Your task to perform on an android device: turn off picture-in-picture Image 0: 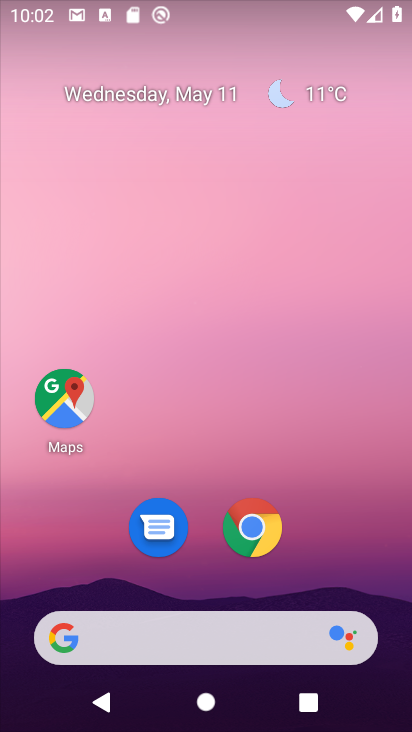
Step 0: click (271, 0)
Your task to perform on an android device: turn off picture-in-picture Image 1: 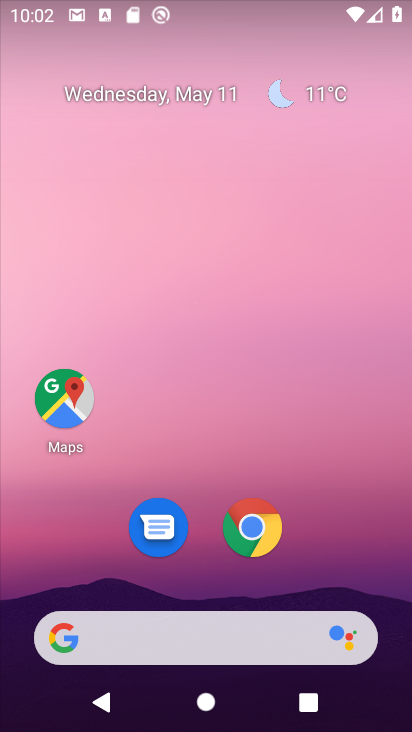
Step 1: drag from (382, 587) to (352, 66)
Your task to perform on an android device: turn off picture-in-picture Image 2: 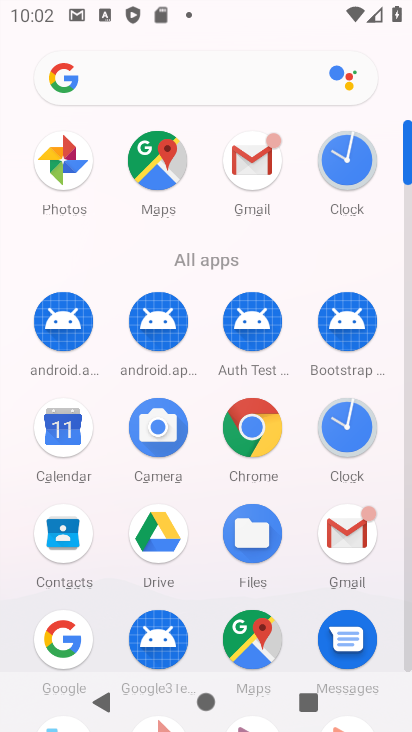
Step 2: click (252, 438)
Your task to perform on an android device: turn off picture-in-picture Image 3: 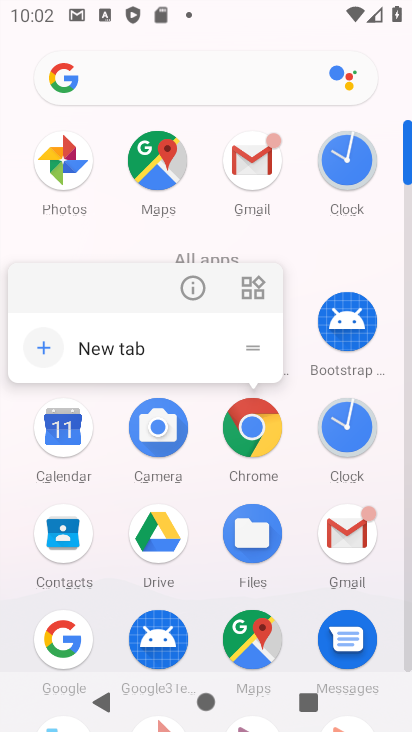
Step 3: click (200, 285)
Your task to perform on an android device: turn off picture-in-picture Image 4: 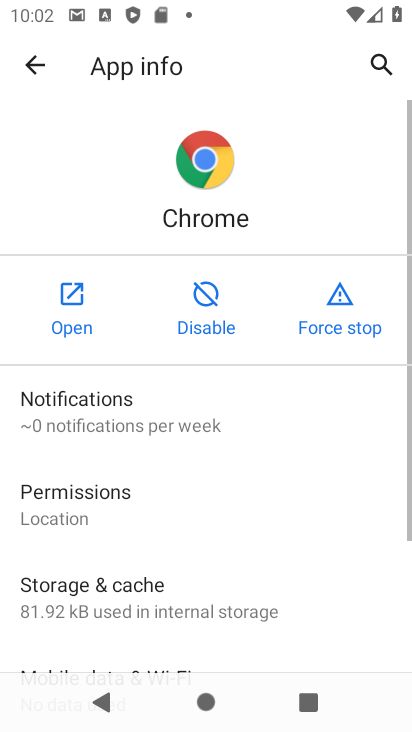
Step 4: drag from (258, 599) to (278, 15)
Your task to perform on an android device: turn off picture-in-picture Image 5: 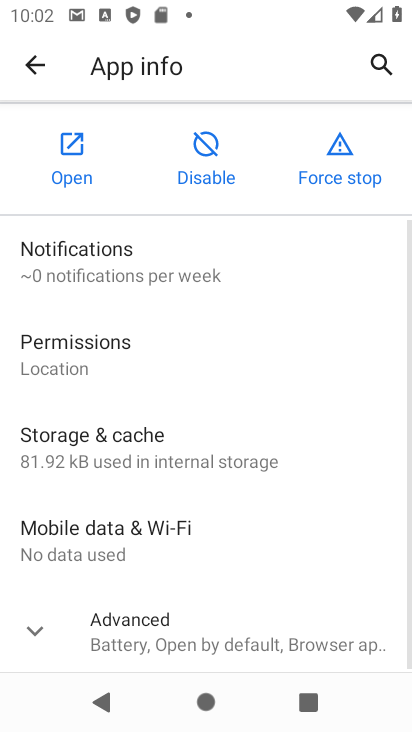
Step 5: drag from (230, 513) to (197, 221)
Your task to perform on an android device: turn off picture-in-picture Image 6: 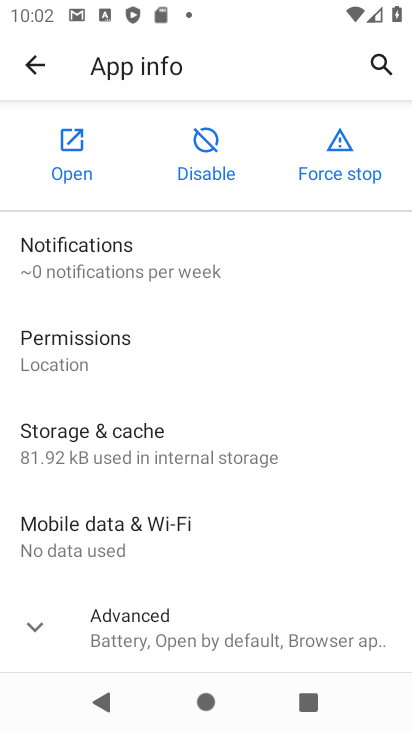
Step 6: click (184, 618)
Your task to perform on an android device: turn off picture-in-picture Image 7: 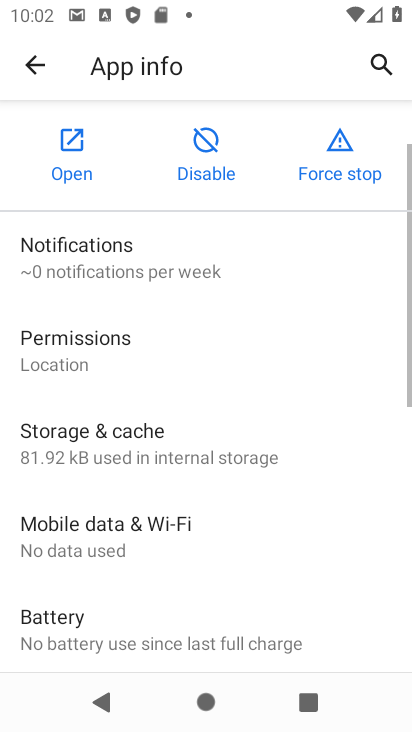
Step 7: drag from (206, 632) to (171, 240)
Your task to perform on an android device: turn off picture-in-picture Image 8: 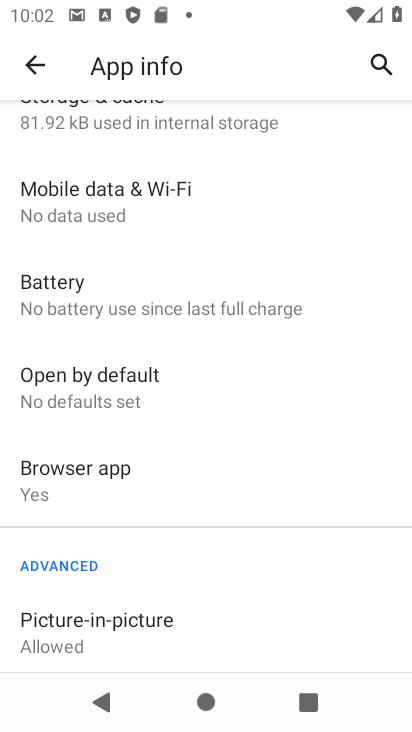
Step 8: click (58, 656)
Your task to perform on an android device: turn off picture-in-picture Image 9: 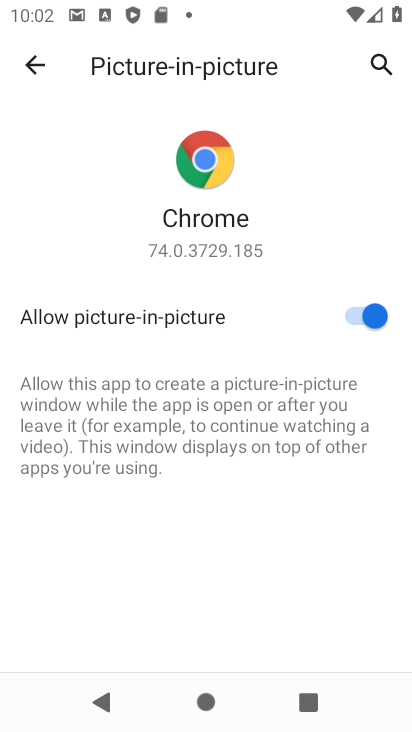
Step 9: click (362, 323)
Your task to perform on an android device: turn off picture-in-picture Image 10: 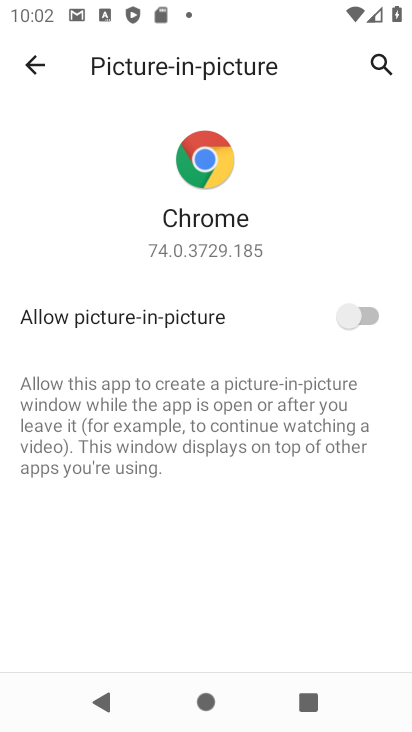
Step 10: task complete